Your task to perform on an android device: Turn on the flashlight Image 0: 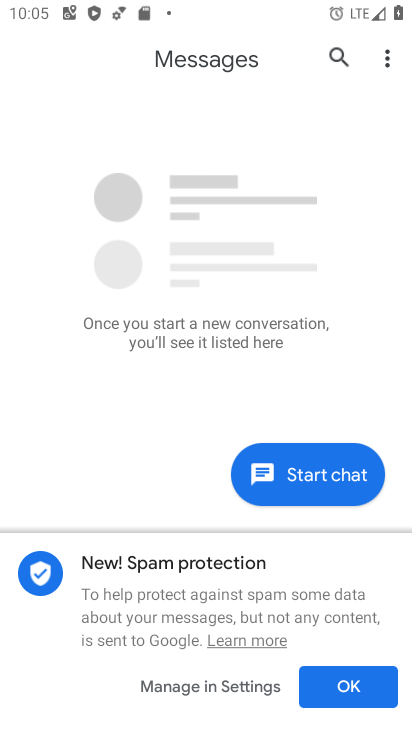
Step 0: click (395, 562)
Your task to perform on an android device: Turn on the flashlight Image 1: 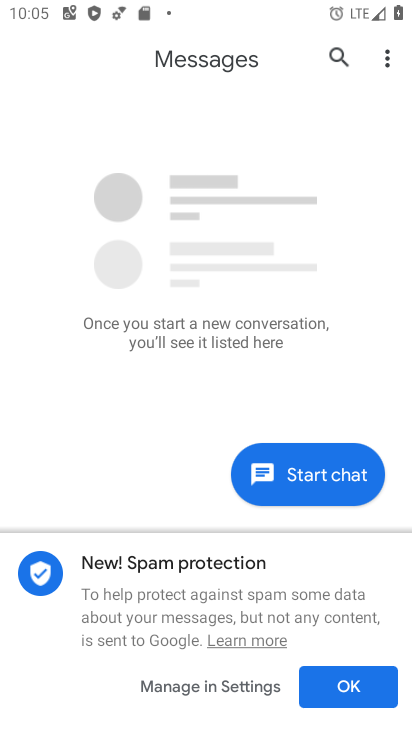
Step 1: press home button
Your task to perform on an android device: Turn on the flashlight Image 2: 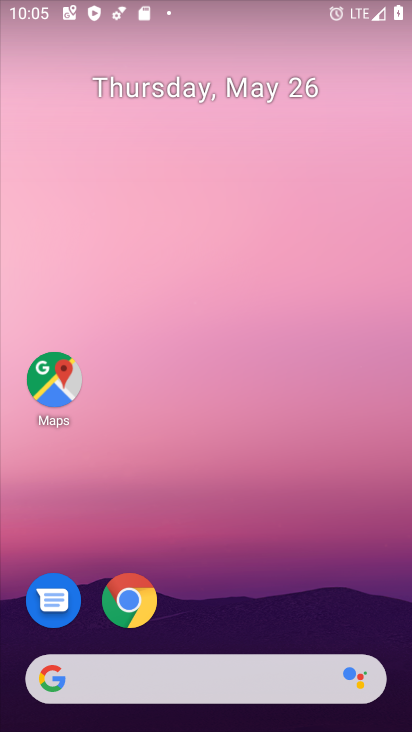
Step 2: drag from (285, 547) to (272, 68)
Your task to perform on an android device: Turn on the flashlight Image 3: 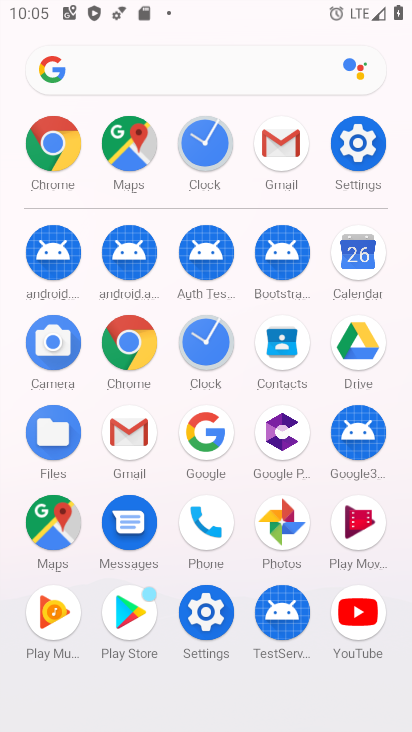
Step 3: click (360, 154)
Your task to perform on an android device: Turn on the flashlight Image 4: 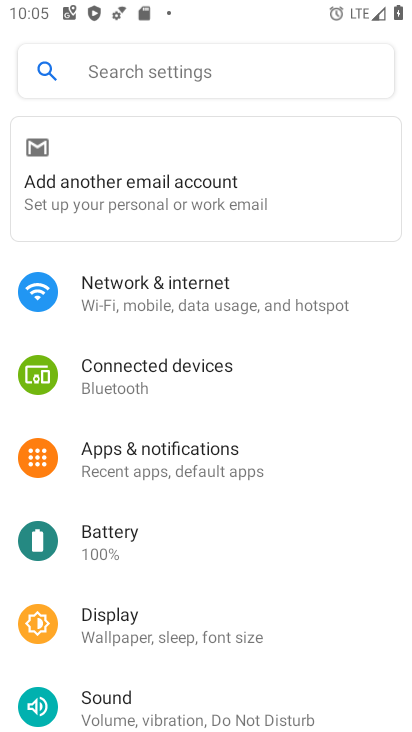
Step 4: drag from (281, 597) to (339, 206)
Your task to perform on an android device: Turn on the flashlight Image 5: 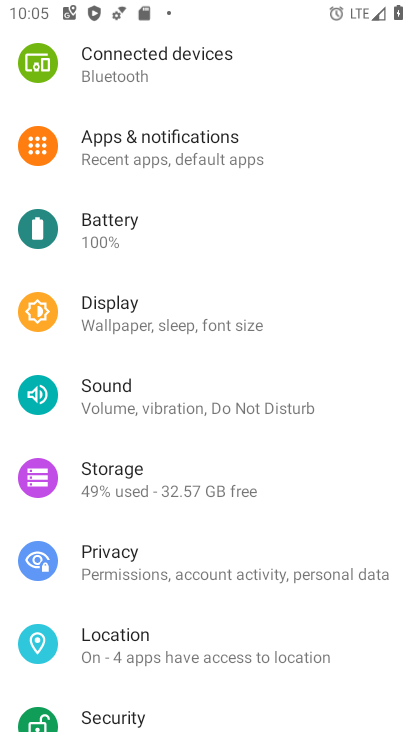
Step 5: click (213, 331)
Your task to perform on an android device: Turn on the flashlight Image 6: 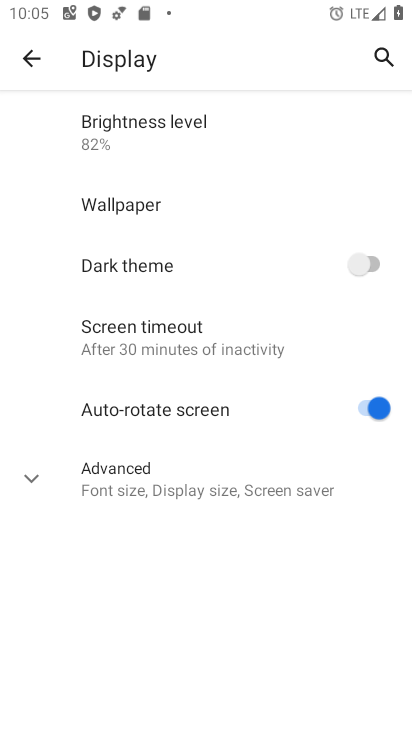
Step 6: task complete